Your task to perform on an android device: open the mobile data screen to see how much data has been used Image 0: 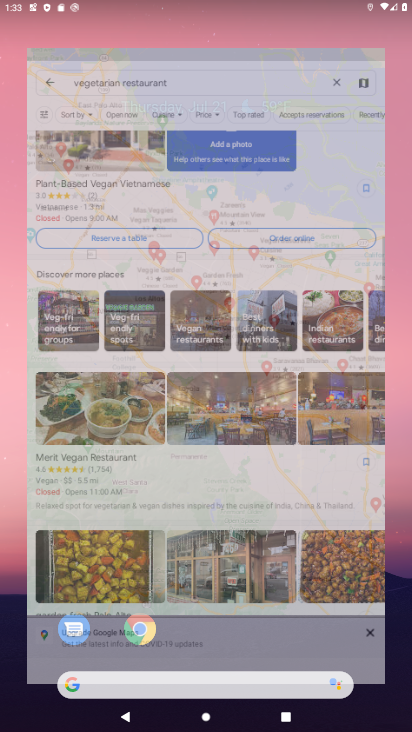
Step 0: press home button
Your task to perform on an android device: open the mobile data screen to see how much data has been used Image 1: 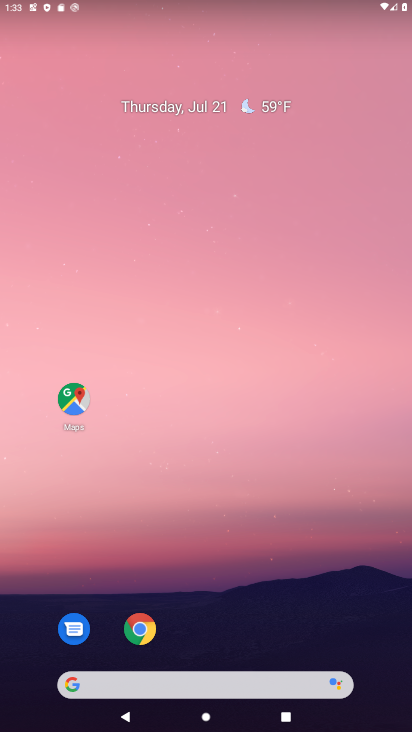
Step 1: drag from (384, 655) to (351, 82)
Your task to perform on an android device: open the mobile data screen to see how much data has been used Image 2: 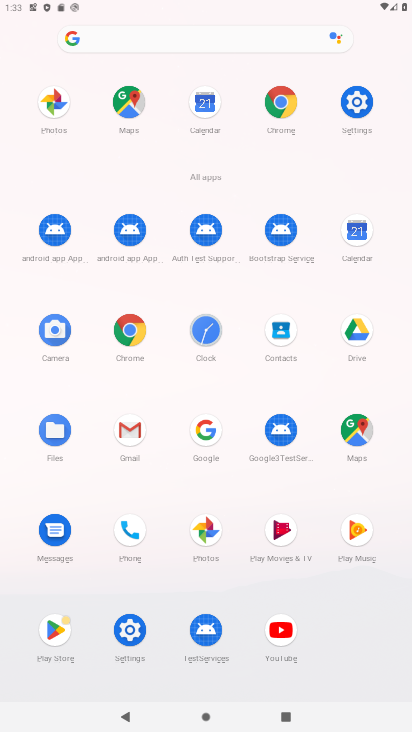
Step 2: click (356, 104)
Your task to perform on an android device: open the mobile data screen to see how much data has been used Image 3: 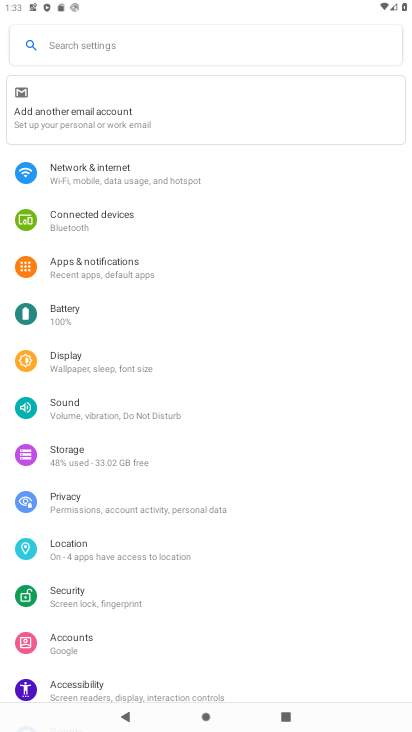
Step 3: click (69, 172)
Your task to perform on an android device: open the mobile data screen to see how much data has been used Image 4: 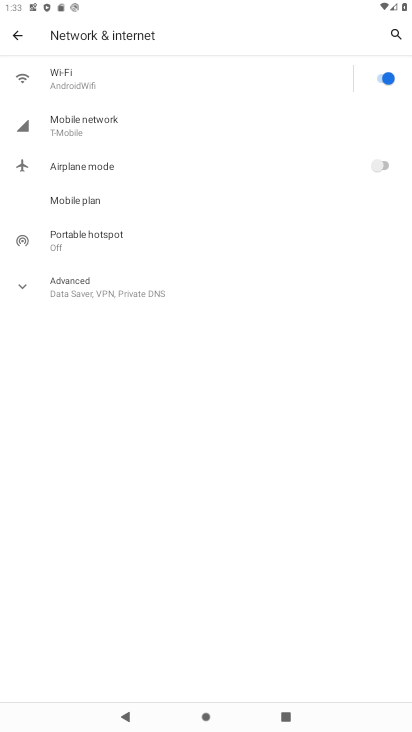
Step 4: click (76, 120)
Your task to perform on an android device: open the mobile data screen to see how much data has been used Image 5: 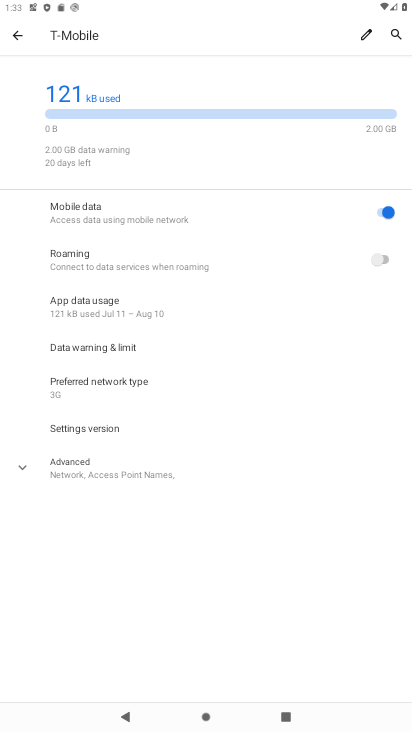
Step 5: task complete